Your task to perform on an android device: see tabs open on other devices in the chrome app Image 0: 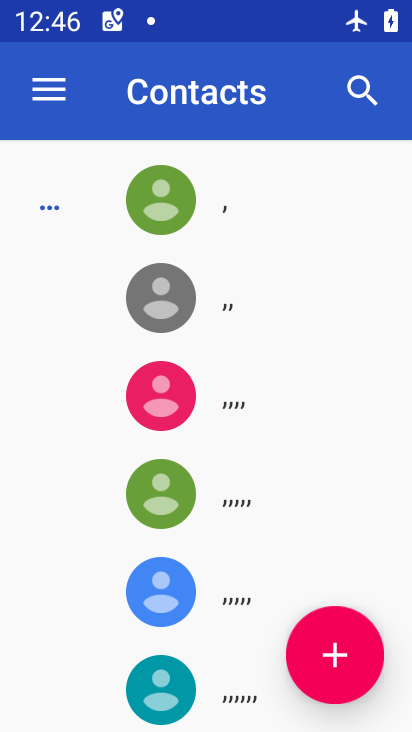
Step 0: press home button
Your task to perform on an android device: see tabs open on other devices in the chrome app Image 1: 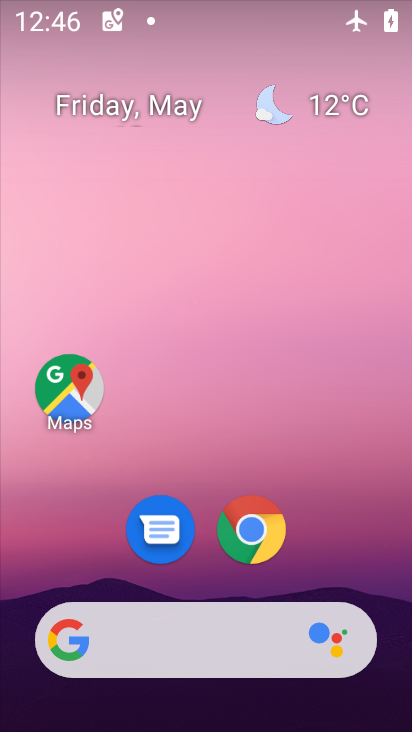
Step 1: drag from (315, 543) to (335, 227)
Your task to perform on an android device: see tabs open on other devices in the chrome app Image 2: 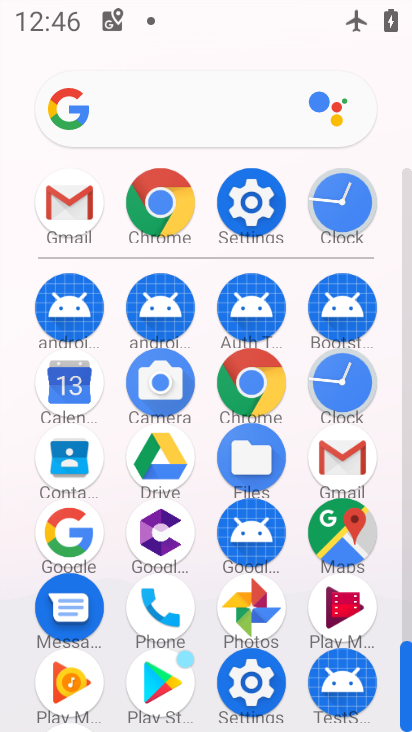
Step 2: click (187, 197)
Your task to perform on an android device: see tabs open on other devices in the chrome app Image 3: 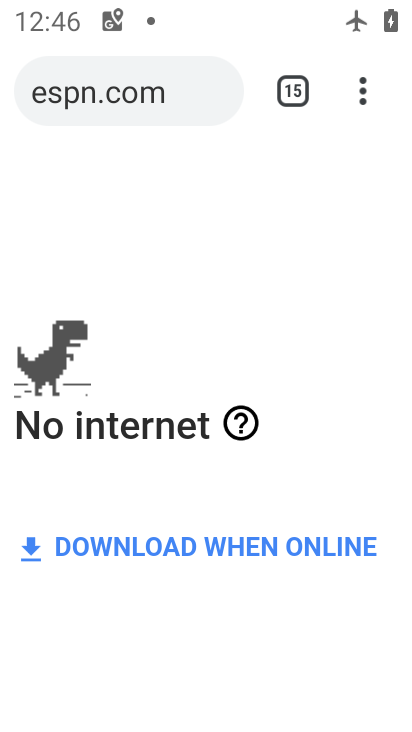
Step 3: click (367, 89)
Your task to perform on an android device: see tabs open on other devices in the chrome app Image 4: 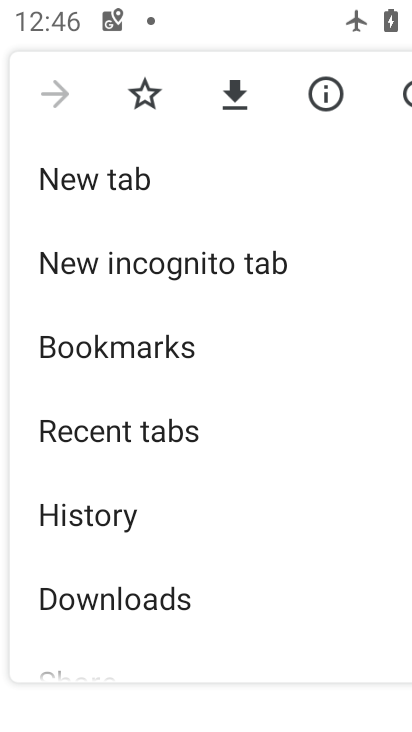
Step 4: click (106, 518)
Your task to perform on an android device: see tabs open on other devices in the chrome app Image 5: 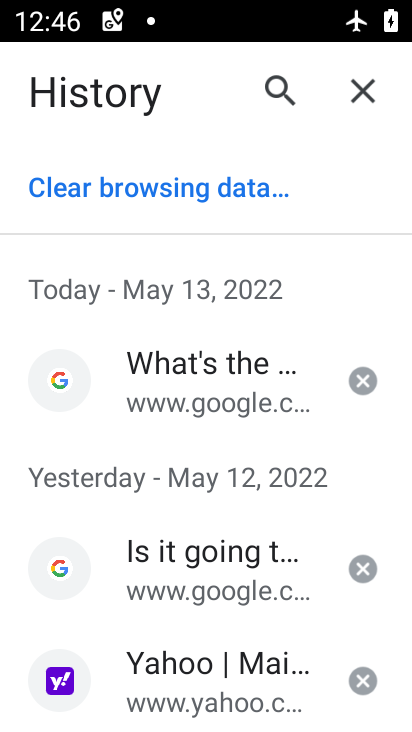
Step 5: click (370, 83)
Your task to perform on an android device: see tabs open on other devices in the chrome app Image 6: 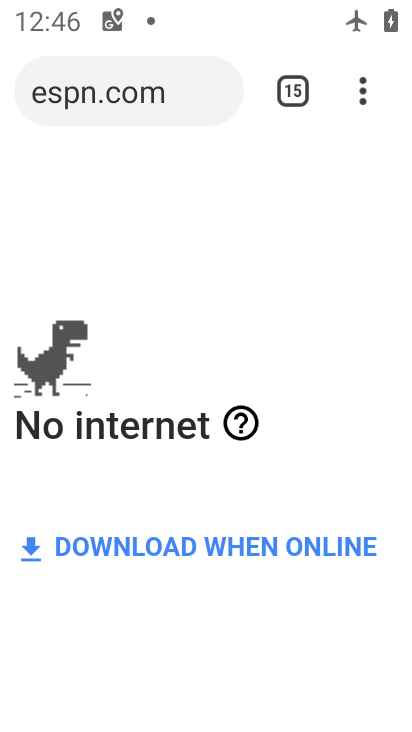
Step 6: click (341, 88)
Your task to perform on an android device: see tabs open on other devices in the chrome app Image 7: 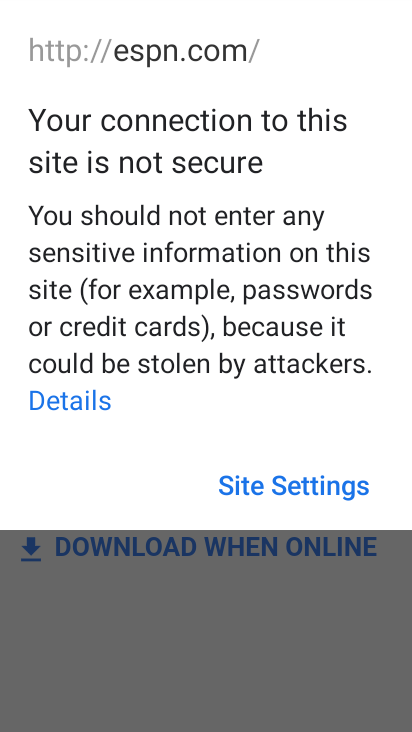
Step 7: press back button
Your task to perform on an android device: see tabs open on other devices in the chrome app Image 8: 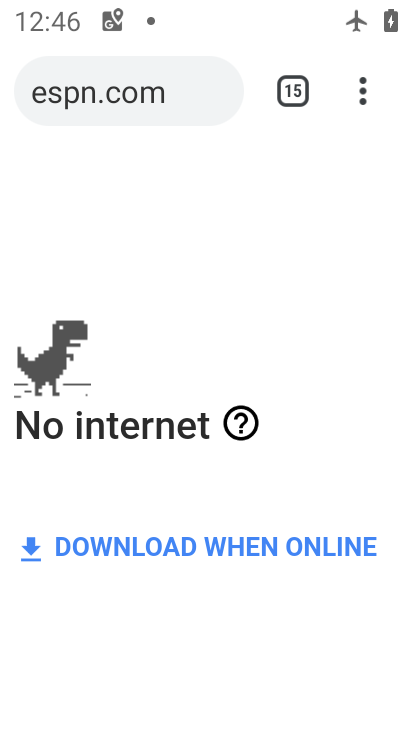
Step 8: click (384, 83)
Your task to perform on an android device: see tabs open on other devices in the chrome app Image 9: 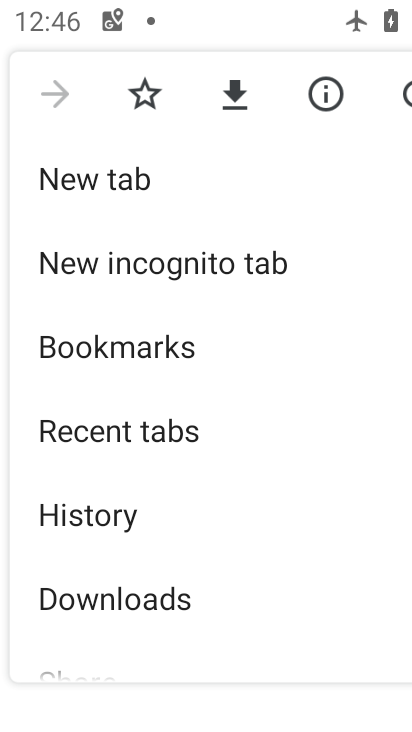
Step 9: click (177, 166)
Your task to perform on an android device: see tabs open on other devices in the chrome app Image 10: 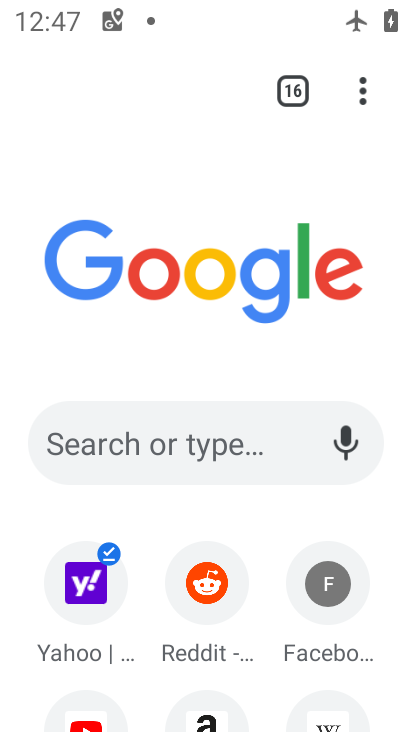
Step 10: task complete